Your task to perform on an android device: change the clock style Image 0: 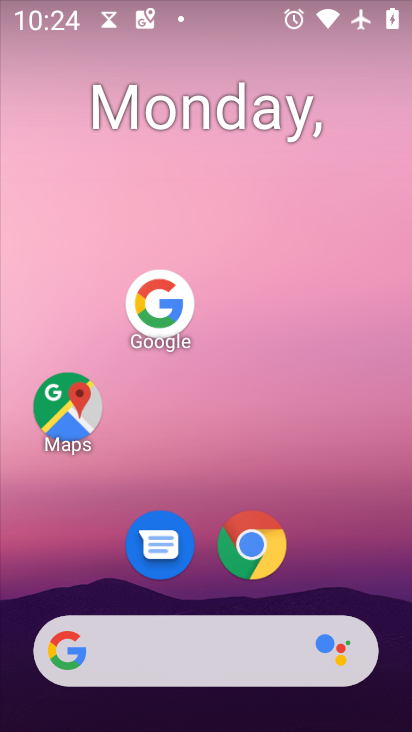
Step 0: press home button
Your task to perform on an android device: change the clock style Image 1: 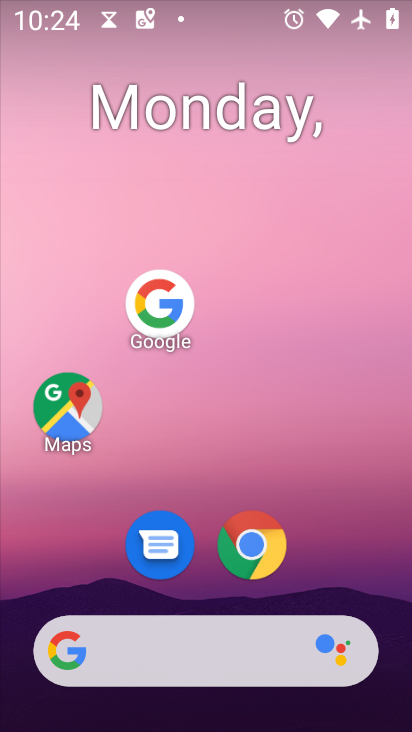
Step 1: drag from (150, 672) to (305, 68)
Your task to perform on an android device: change the clock style Image 2: 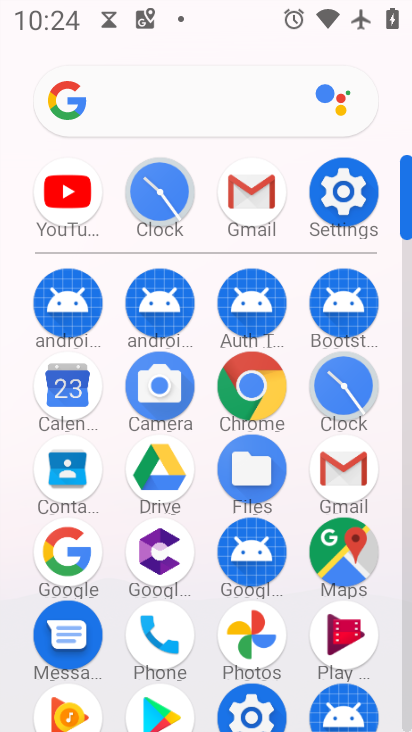
Step 2: click (151, 194)
Your task to perform on an android device: change the clock style Image 3: 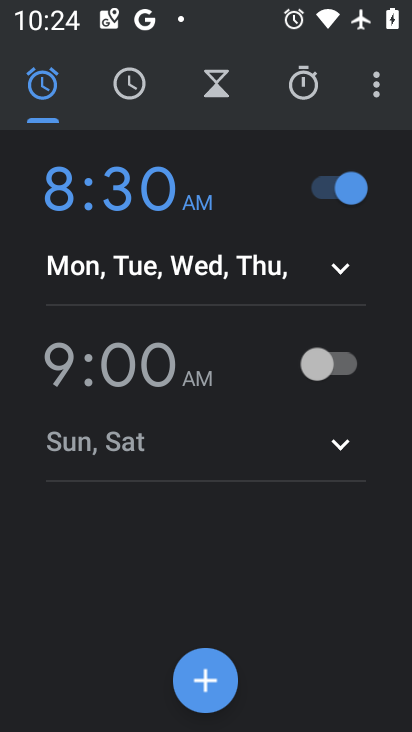
Step 3: click (383, 80)
Your task to perform on an android device: change the clock style Image 4: 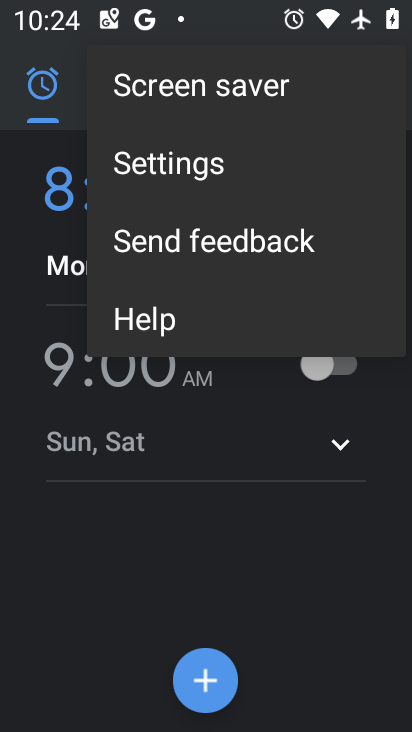
Step 4: click (162, 172)
Your task to perform on an android device: change the clock style Image 5: 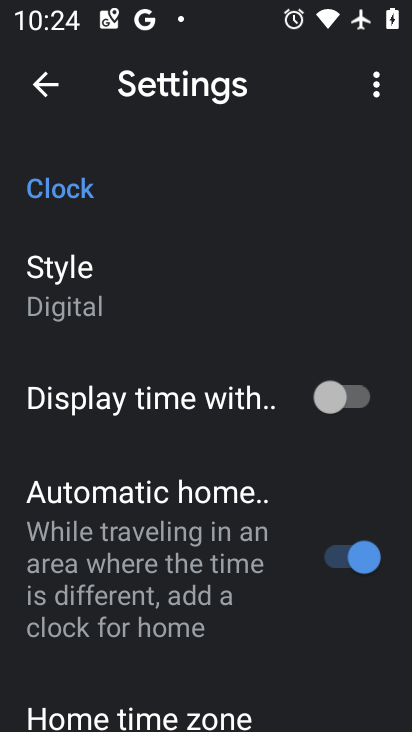
Step 5: click (97, 309)
Your task to perform on an android device: change the clock style Image 6: 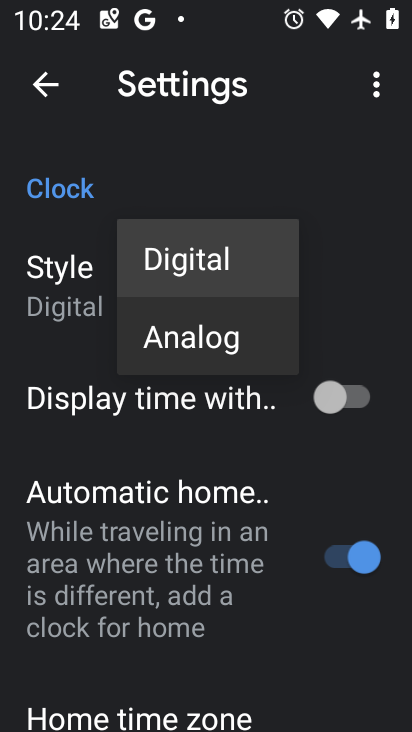
Step 6: click (179, 323)
Your task to perform on an android device: change the clock style Image 7: 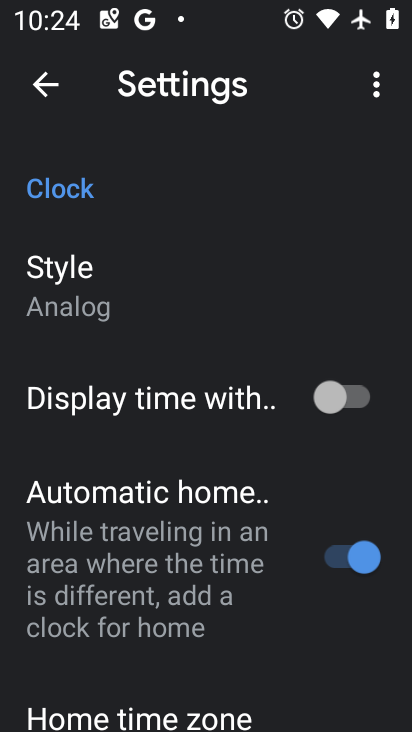
Step 7: task complete